Your task to perform on an android device: Turn on the flashlight Image 0: 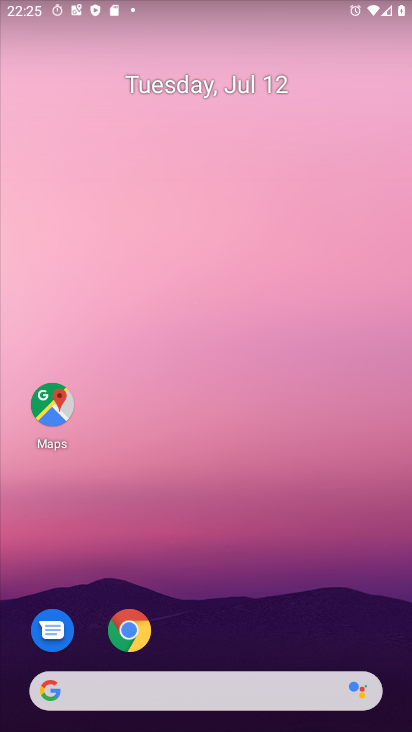
Step 0: drag from (330, 594) to (292, 8)
Your task to perform on an android device: Turn on the flashlight Image 1: 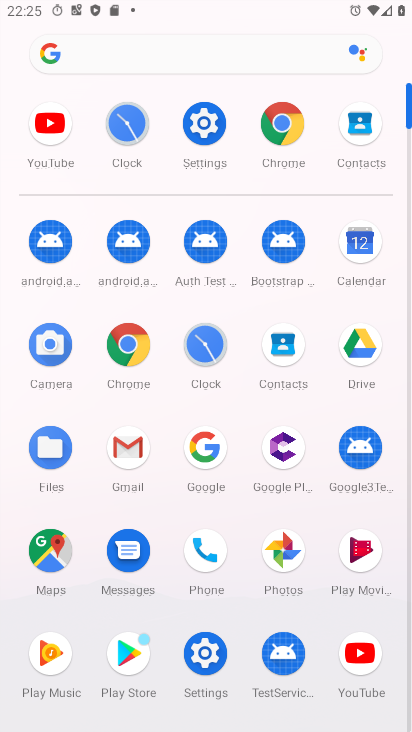
Step 1: click (208, 117)
Your task to perform on an android device: Turn on the flashlight Image 2: 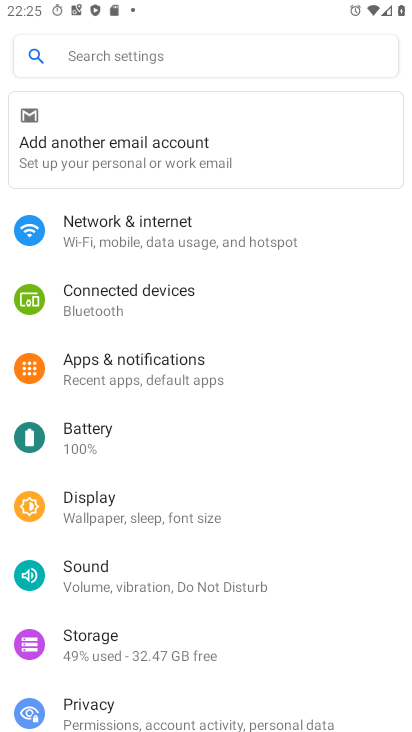
Step 2: click (145, 54)
Your task to perform on an android device: Turn on the flashlight Image 3: 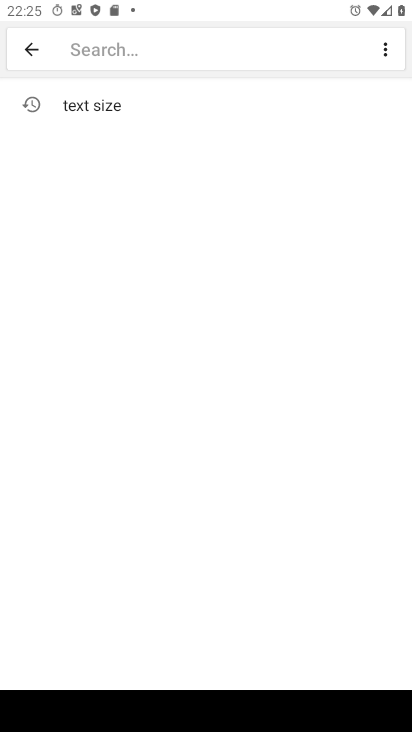
Step 3: type "flashlight"
Your task to perform on an android device: Turn on the flashlight Image 4: 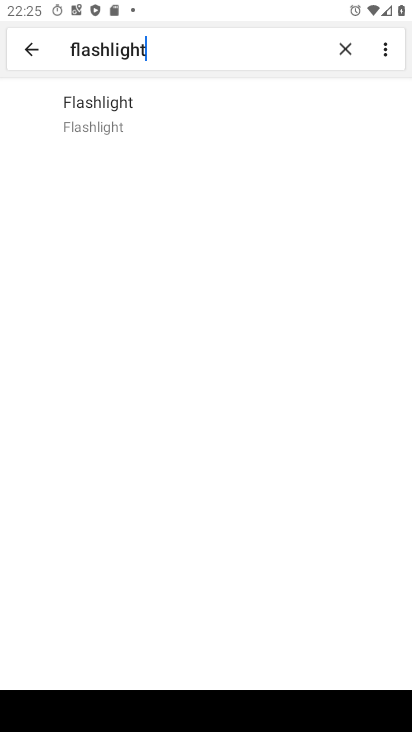
Step 4: click (158, 113)
Your task to perform on an android device: Turn on the flashlight Image 5: 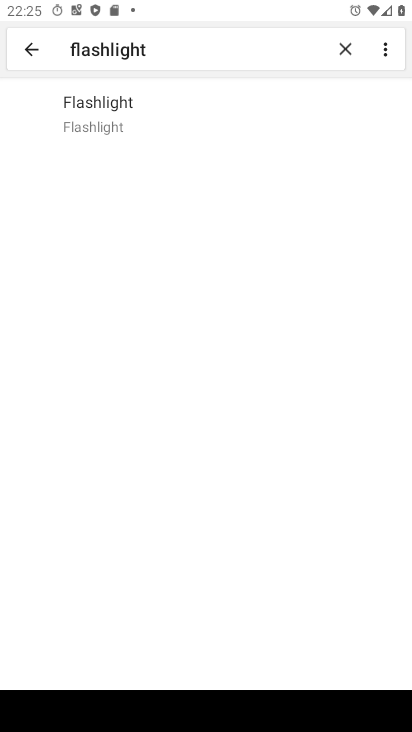
Step 5: task complete